Your task to perform on an android device: View the shopping cart on ebay.com. Add "dell xps" to the cart on ebay.com, then select checkout. Image 0: 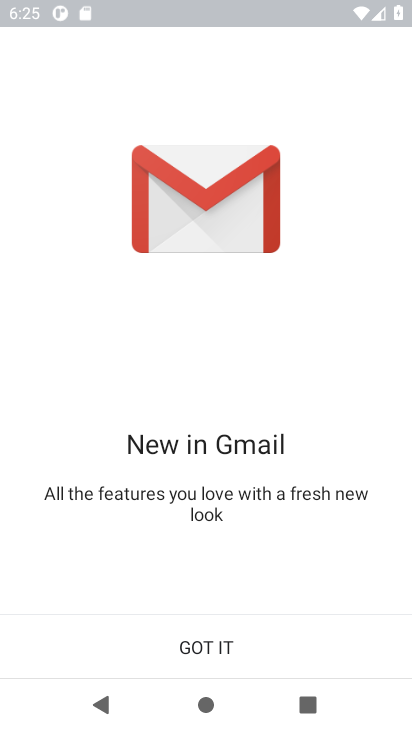
Step 0: press home button
Your task to perform on an android device: View the shopping cart on ebay.com. Add "dell xps" to the cart on ebay.com, then select checkout. Image 1: 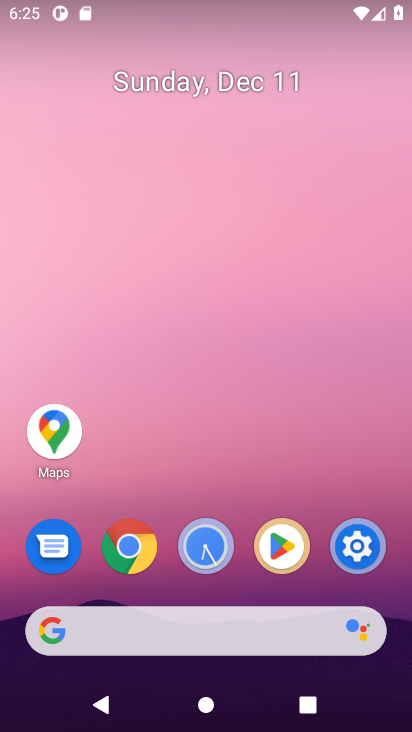
Step 1: drag from (229, 586) to (300, 142)
Your task to perform on an android device: View the shopping cart on ebay.com. Add "dell xps" to the cart on ebay.com, then select checkout. Image 2: 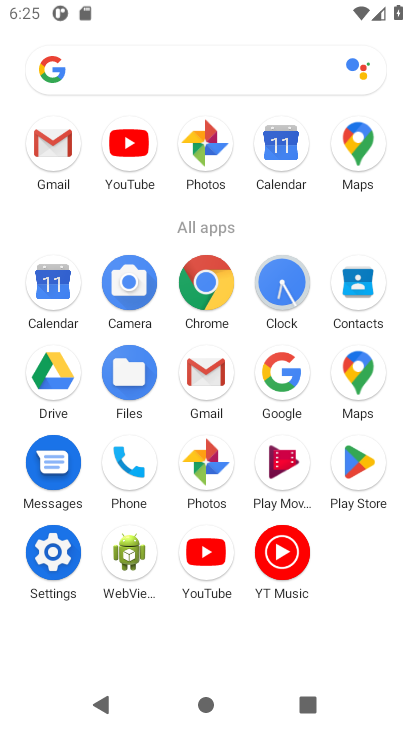
Step 2: click (285, 359)
Your task to perform on an android device: View the shopping cart on ebay.com. Add "dell xps" to the cart on ebay.com, then select checkout. Image 3: 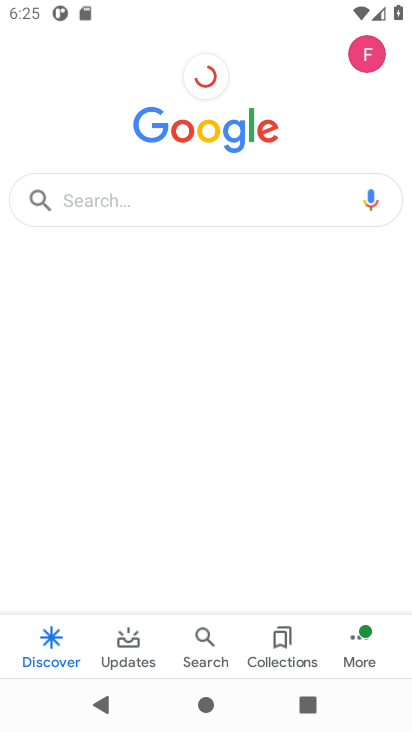
Step 3: click (139, 199)
Your task to perform on an android device: View the shopping cart on ebay.com. Add "dell xps" to the cart on ebay.com, then select checkout. Image 4: 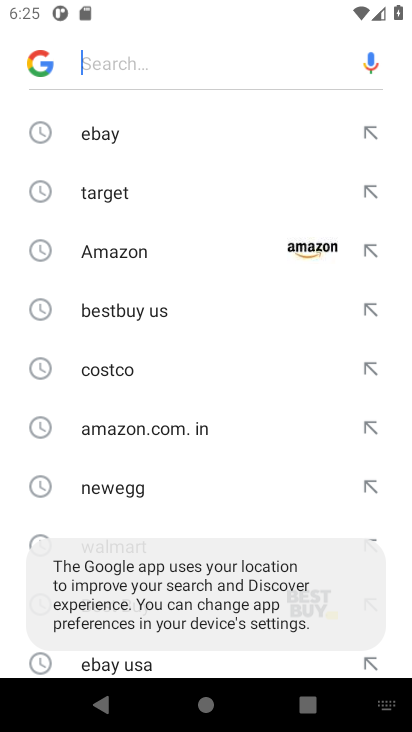
Step 4: click (91, 131)
Your task to perform on an android device: View the shopping cart on ebay.com. Add "dell xps" to the cart on ebay.com, then select checkout. Image 5: 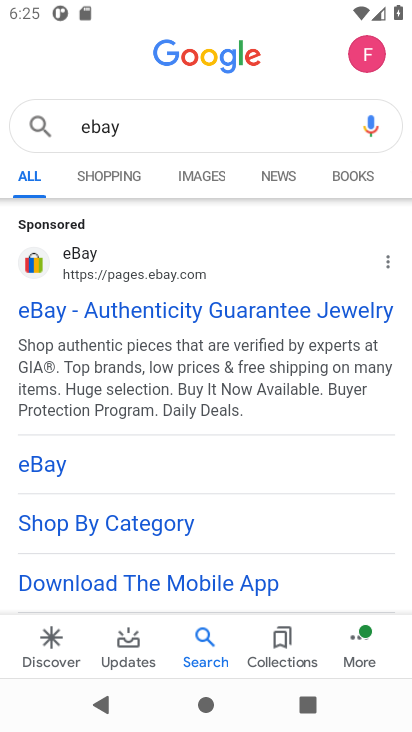
Step 5: click (123, 313)
Your task to perform on an android device: View the shopping cart on ebay.com. Add "dell xps" to the cart on ebay.com, then select checkout. Image 6: 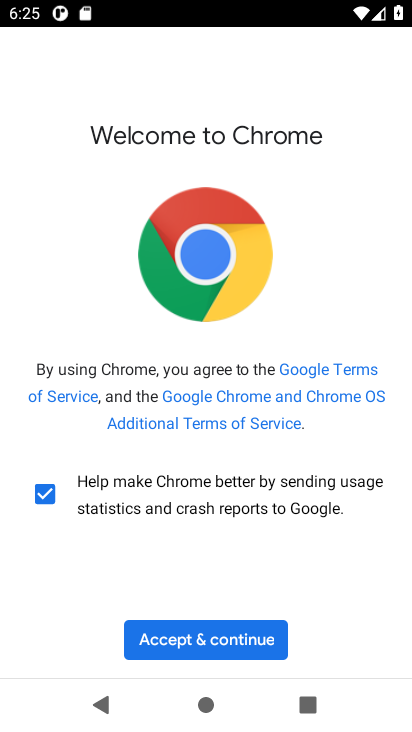
Step 6: click (236, 627)
Your task to perform on an android device: View the shopping cart on ebay.com. Add "dell xps" to the cart on ebay.com, then select checkout. Image 7: 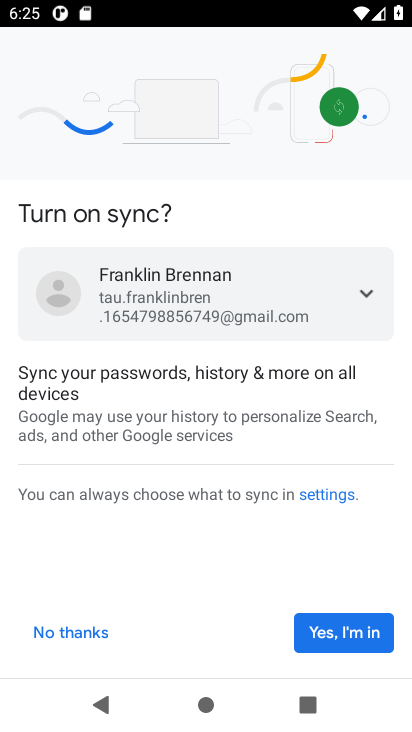
Step 7: click (339, 629)
Your task to perform on an android device: View the shopping cart on ebay.com. Add "dell xps" to the cart on ebay.com, then select checkout. Image 8: 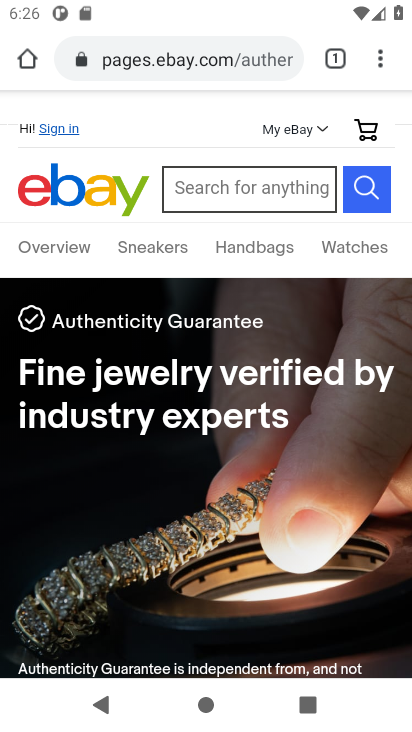
Step 8: click (378, 132)
Your task to perform on an android device: View the shopping cart on ebay.com. Add "dell xps" to the cart on ebay.com, then select checkout. Image 9: 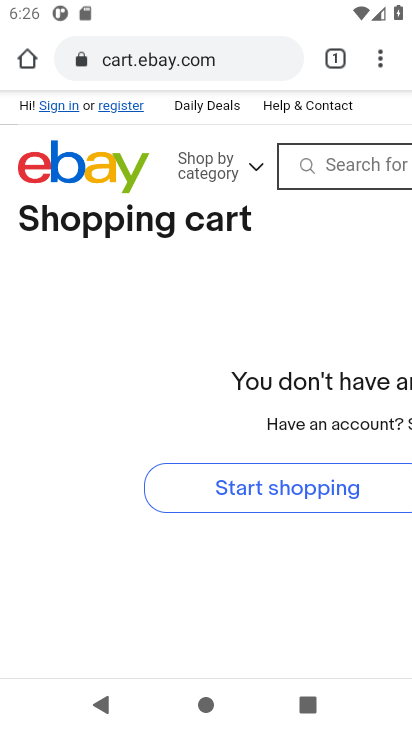
Step 9: click (364, 155)
Your task to perform on an android device: View the shopping cart on ebay.com. Add "dell xps" to the cart on ebay.com, then select checkout. Image 10: 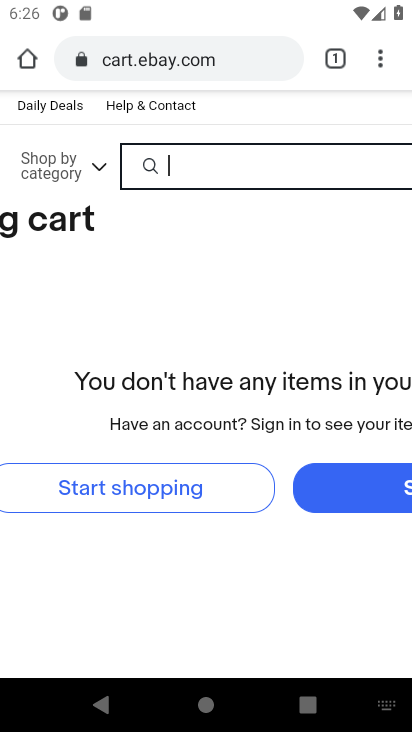
Step 10: type "dell xps"
Your task to perform on an android device: View the shopping cart on ebay.com. Add "dell xps" to the cart on ebay.com, then select checkout. Image 11: 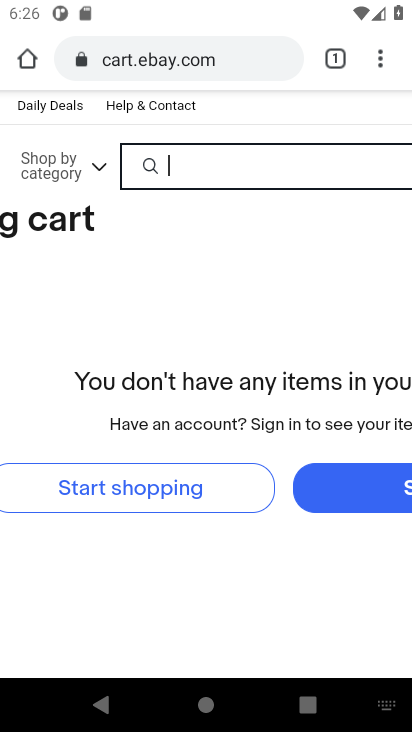
Step 11: click (158, 162)
Your task to perform on an android device: View the shopping cart on ebay.com. Add "dell xps" to the cart on ebay.com, then select checkout. Image 12: 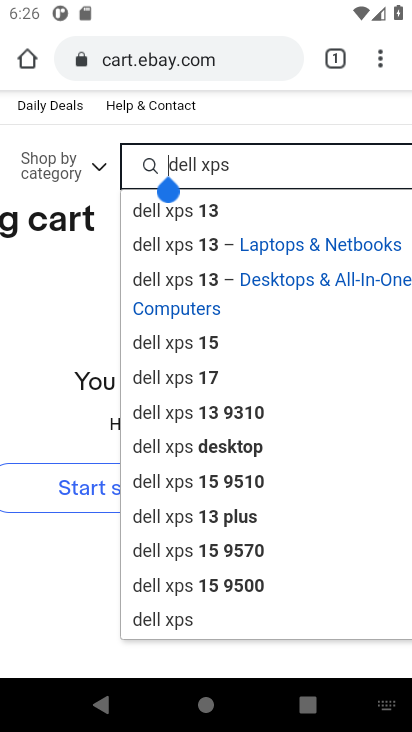
Step 12: click (183, 622)
Your task to perform on an android device: View the shopping cart on ebay.com. Add "dell xps" to the cart on ebay.com, then select checkout. Image 13: 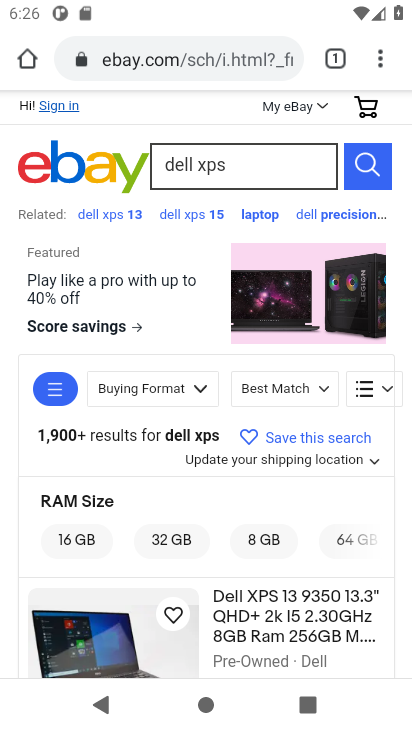
Step 13: drag from (175, 648) to (153, 263)
Your task to perform on an android device: View the shopping cart on ebay.com. Add "dell xps" to the cart on ebay.com, then select checkout. Image 14: 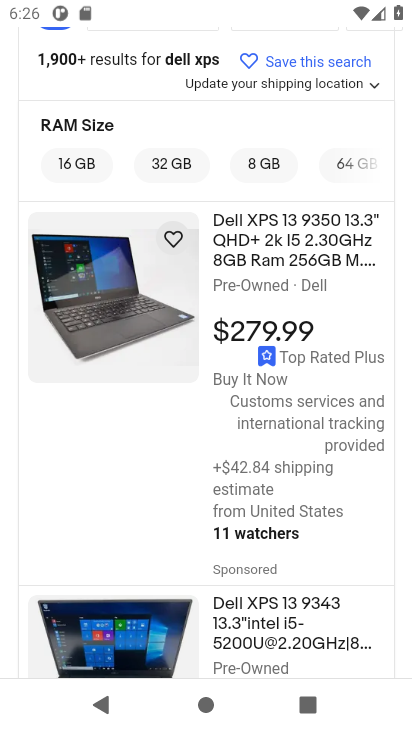
Step 14: click (254, 247)
Your task to perform on an android device: View the shopping cart on ebay.com. Add "dell xps" to the cart on ebay.com, then select checkout. Image 15: 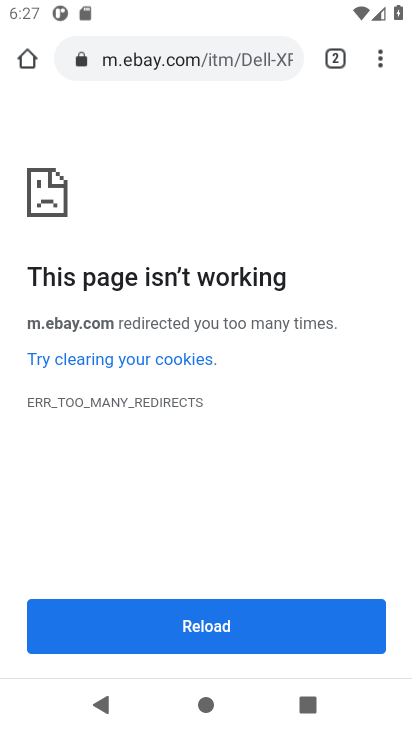
Step 15: task complete